Your task to perform on an android device: install app "Expedia: Hotels, Flights & Car" Image 0: 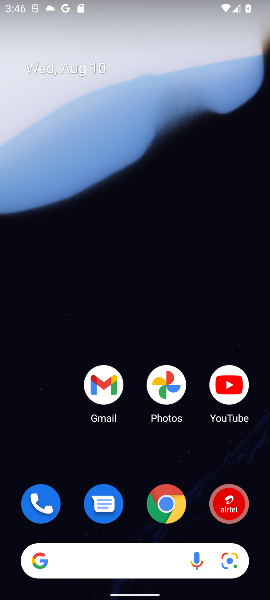
Step 0: drag from (191, 355) to (185, 47)
Your task to perform on an android device: install app "Expedia: Hotels, Flights & Car" Image 1: 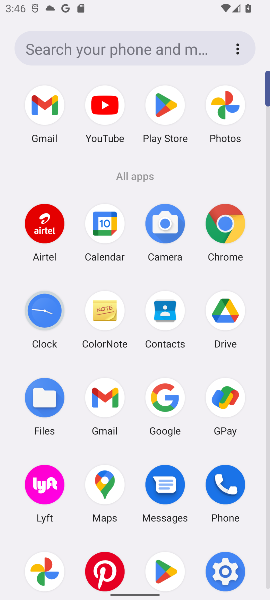
Step 1: click (164, 118)
Your task to perform on an android device: install app "Expedia: Hotels, Flights & Car" Image 2: 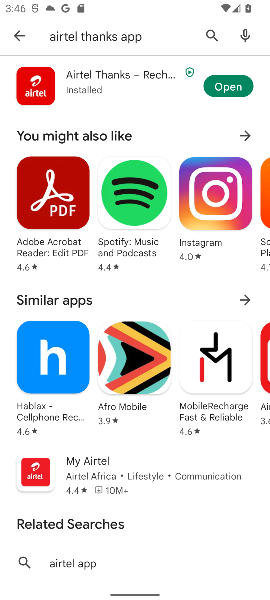
Step 2: drag from (266, 549) to (81, 571)
Your task to perform on an android device: install app "Expedia: Hotels, Flights & Car" Image 3: 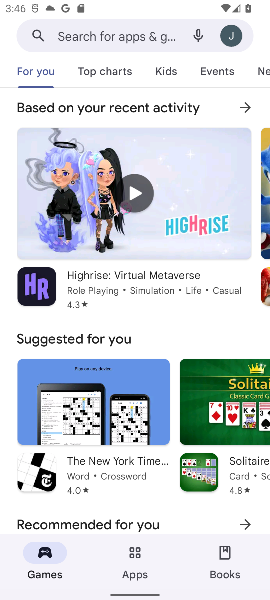
Step 3: click (110, 34)
Your task to perform on an android device: install app "Expedia: Hotels, Flights & Car" Image 4: 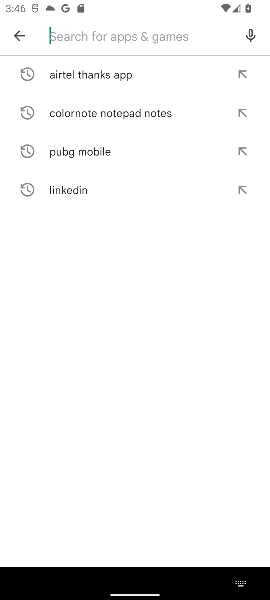
Step 4: type "Expedia: Hotels, Flights & Car"
Your task to perform on an android device: install app "Expedia: Hotels, Flights & Car" Image 5: 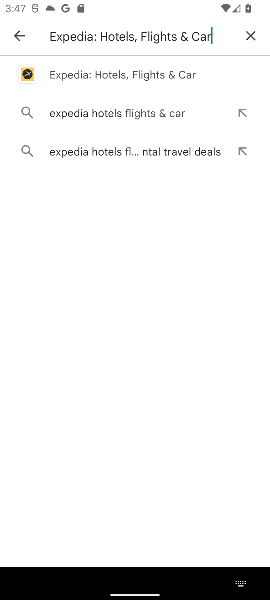
Step 5: click (119, 76)
Your task to perform on an android device: install app "Expedia: Hotels, Flights & Car" Image 6: 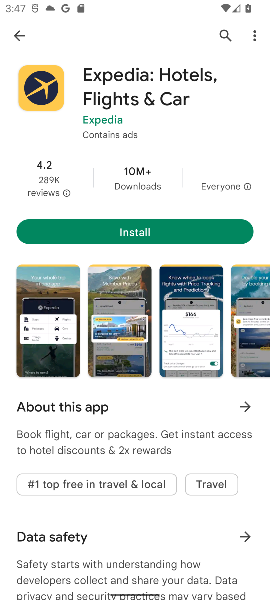
Step 6: click (196, 230)
Your task to perform on an android device: install app "Expedia: Hotels, Flights & Car" Image 7: 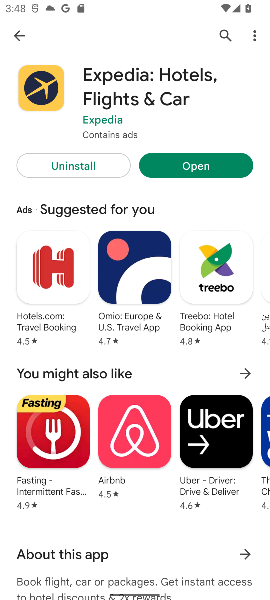
Step 7: task complete